Your task to perform on an android device: Check the weather Image 0: 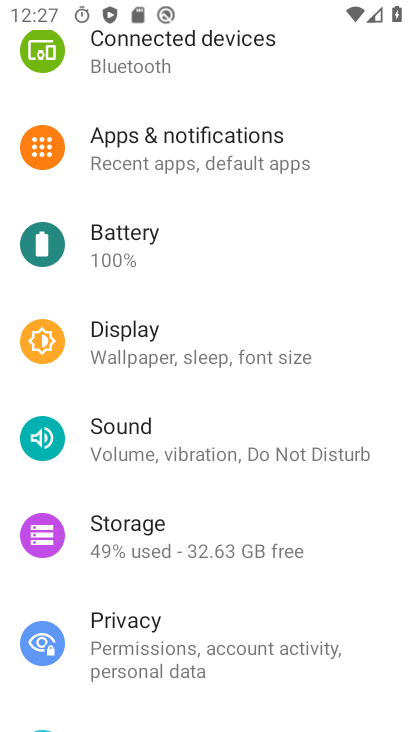
Step 0: press back button
Your task to perform on an android device: Check the weather Image 1: 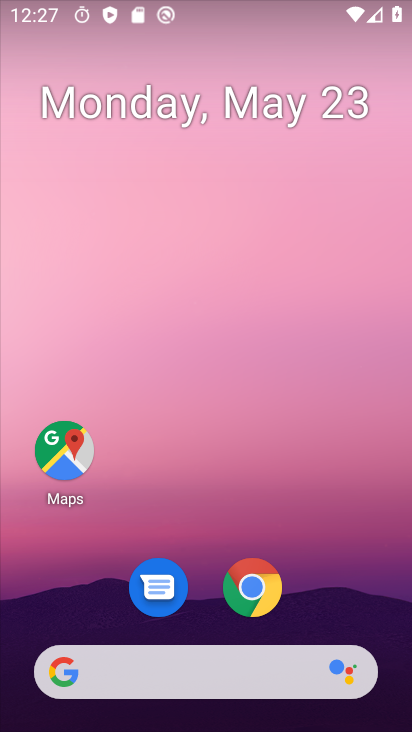
Step 1: drag from (200, 599) to (252, 27)
Your task to perform on an android device: Check the weather Image 2: 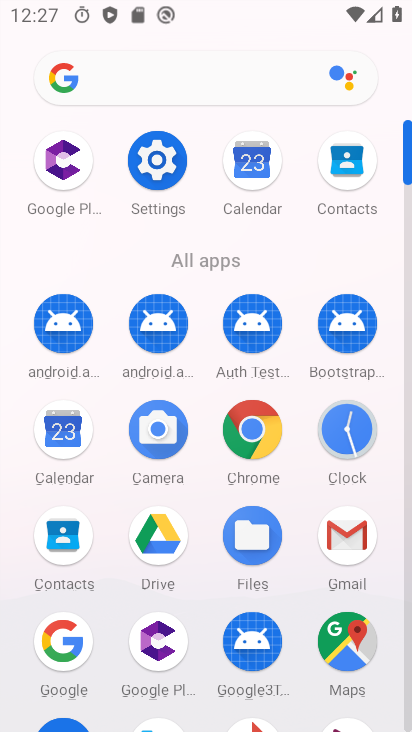
Step 2: click (143, 76)
Your task to perform on an android device: Check the weather Image 3: 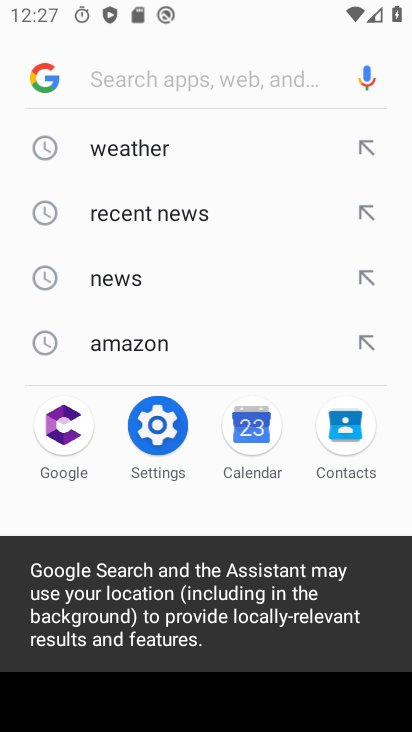
Step 3: click (138, 154)
Your task to perform on an android device: Check the weather Image 4: 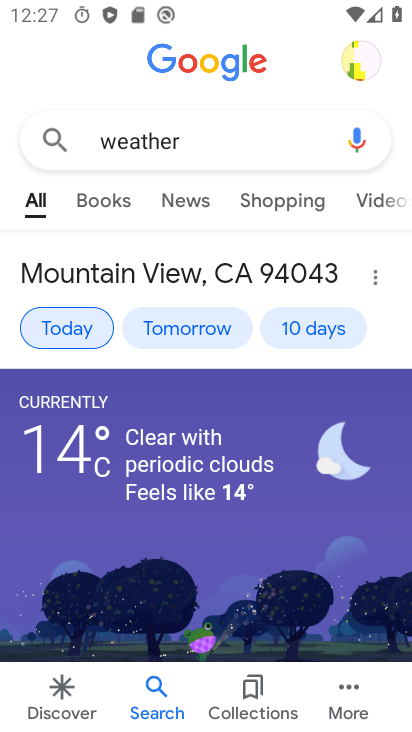
Step 4: task complete